Your task to perform on an android device: toggle wifi Image 0: 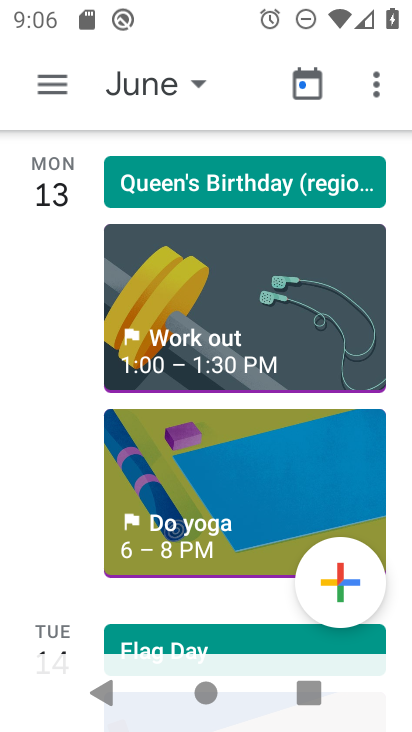
Step 0: press home button
Your task to perform on an android device: toggle wifi Image 1: 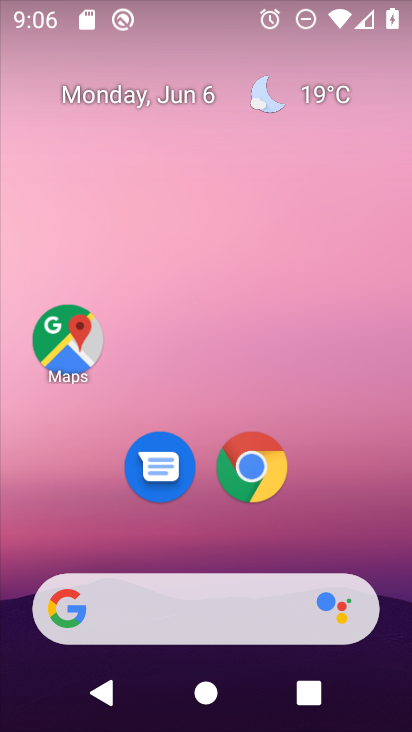
Step 1: drag from (359, 522) to (368, 158)
Your task to perform on an android device: toggle wifi Image 2: 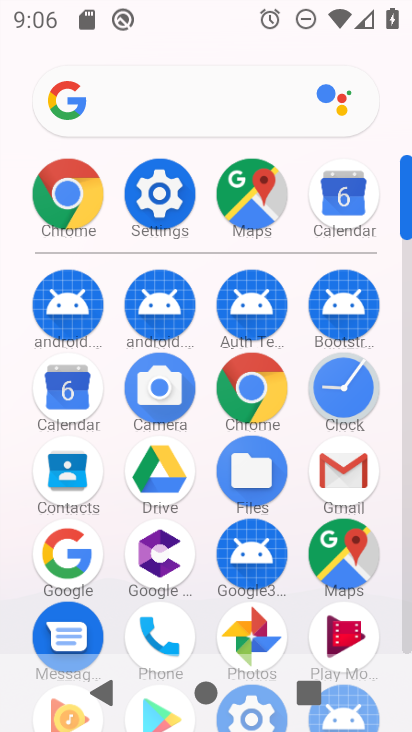
Step 2: click (175, 202)
Your task to perform on an android device: toggle wifi Image 3: 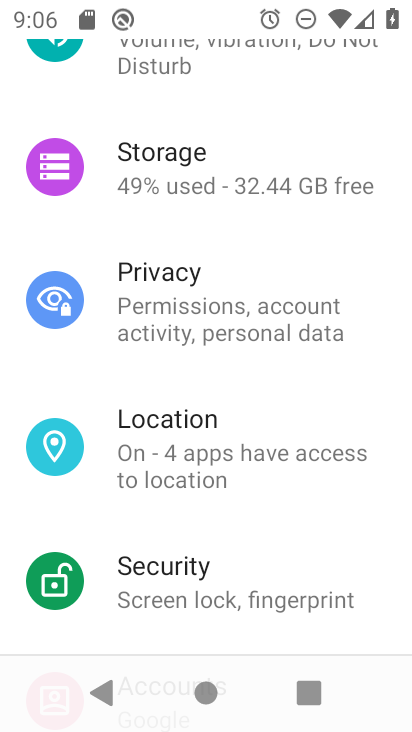
Step 3: drag from (383, 273) to (385, 377)
Your task to perform on an android device: toggle wifi Image 4: 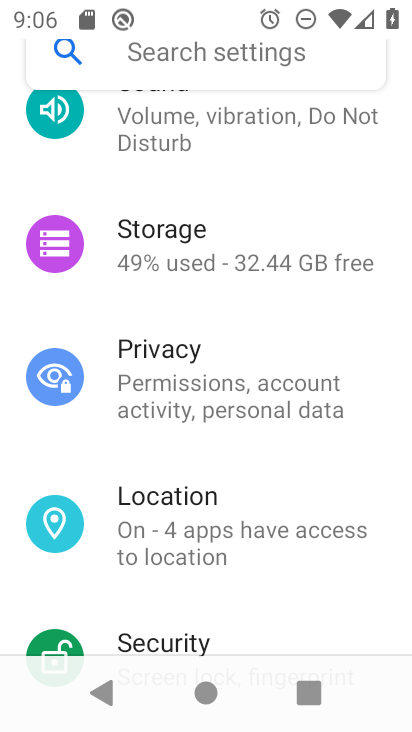
Step 4: drag from (374, 223) to (382, 362)
Your task to perform on an android device: toggle wifi Image 5: 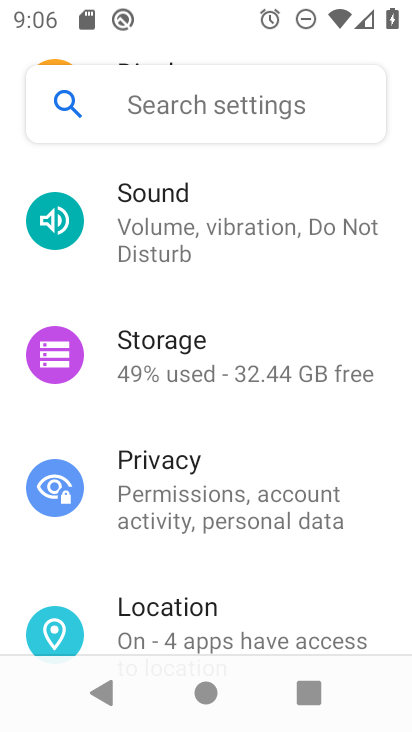
Step 5: drag from (382, 267) to (388, 383)
Your task to perform on an android device: toggle wifi Image 6: 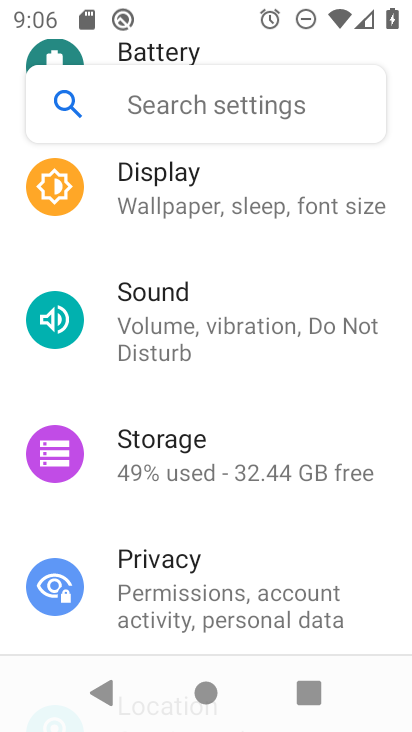
Step 6: drag from (374, 260) to (366, 382)
Your task to perform on an android device: toggle wifi Image 7: 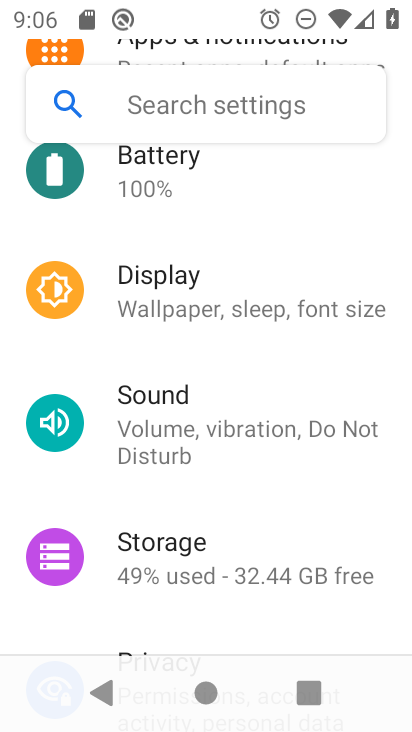
Step 7: drag from (342, 224) to (356, 381)
Your task to perform on an android device: toggle wifi Image 8: 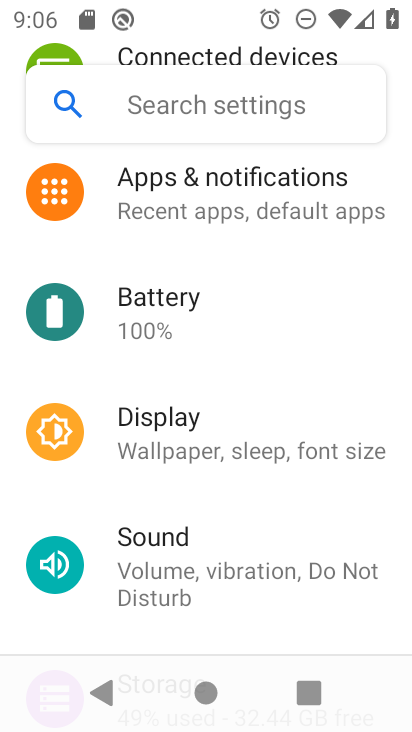
Step 8: drag from (327, 270) to (330, 371)
Your task to perform on an android device: toggle wifi Image 9: 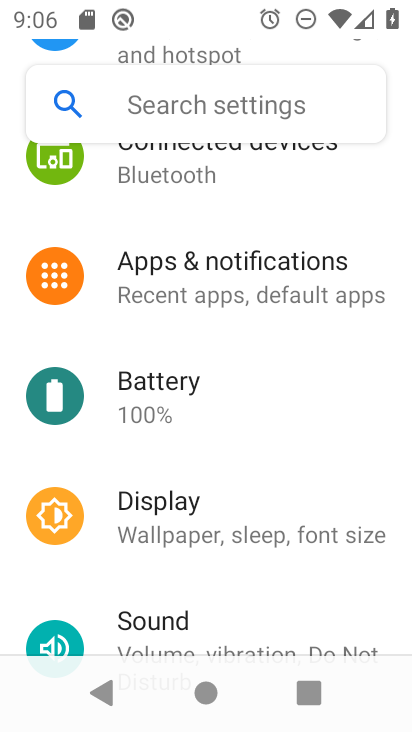
Step 9: drag from (329, 202) to (327, 353)
Your task to perform on an android device: toggle wifi Image 10: 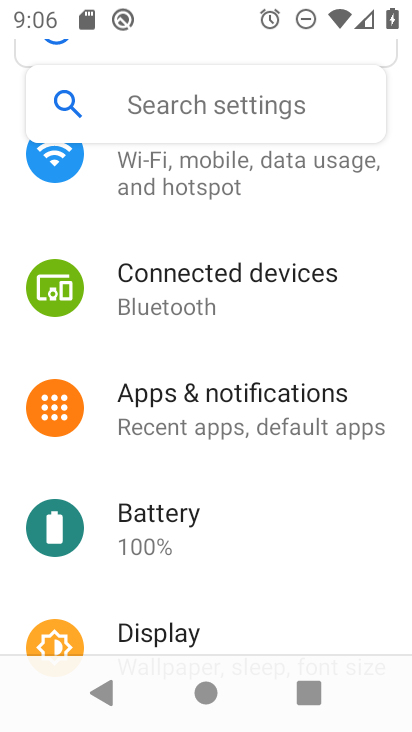
Step 10: drag from (349, 203) to (348, 365)
Your task to perform on an android device: toggle wifi Image 11: 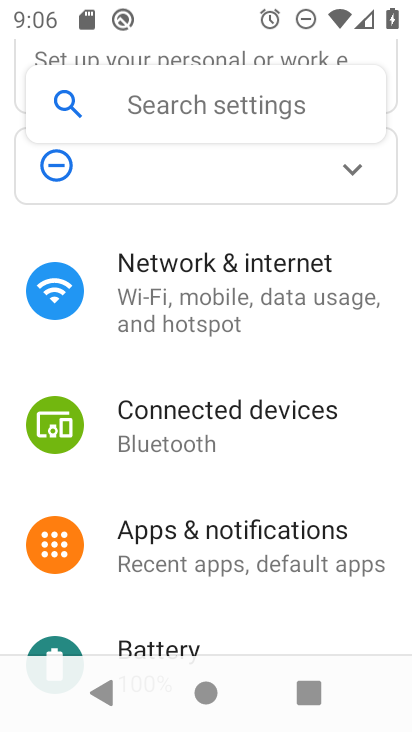
Step 11: click (312, 285)
Your task to perform on an android device: toggle wifi Image 12: 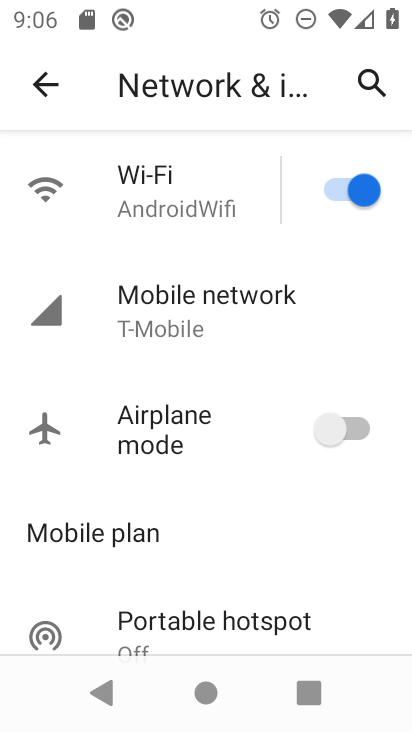
Step 12: drag from (243, 432) to (252, 293)
Your task to perform on an android device: toggle wifi Image 13: 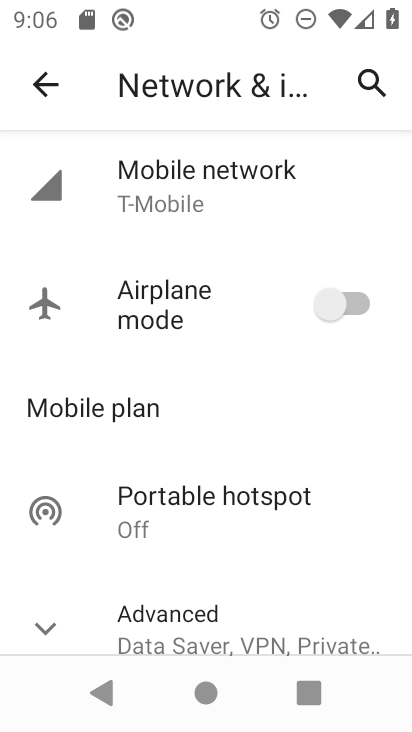
Step 13: drag from (255, 526) to (258, 294)
Your task to perform on an android device: toggle wifi Image 14: 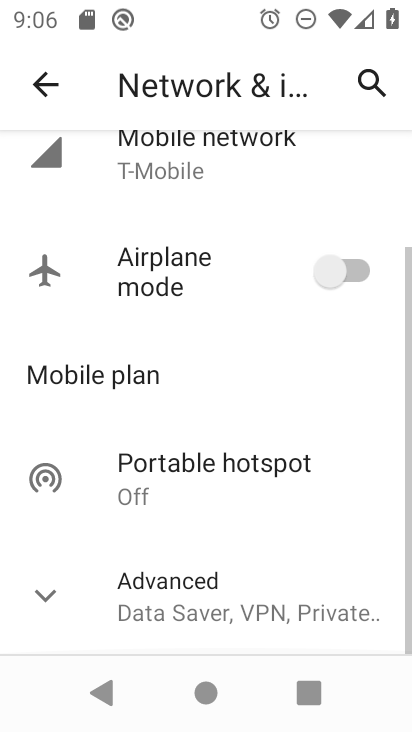
Step 14: drag from (262, 229) to (282, 521)
Your task to perform on an android device: toggle wifi Image 15: 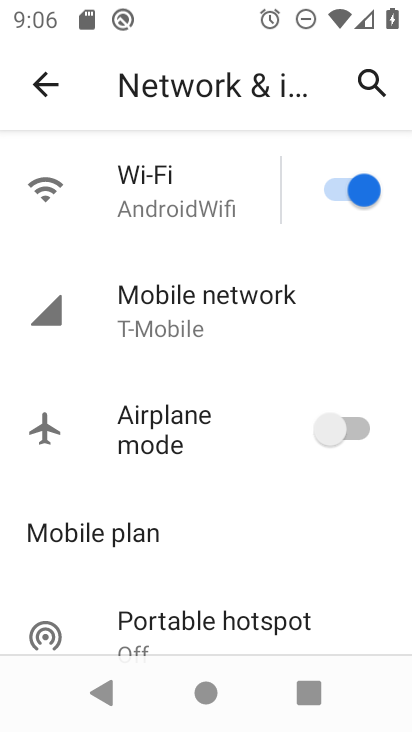
Step 15: click (357, 188)
Your task to perform on an android device: toggle wifi Image 16: 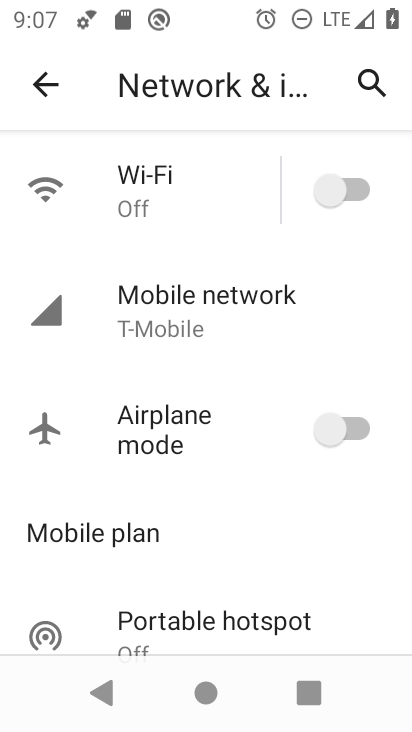
Step 16: task complete